Your task to perform on an android device: open chrome and create a bookmark for the current page Image 0: 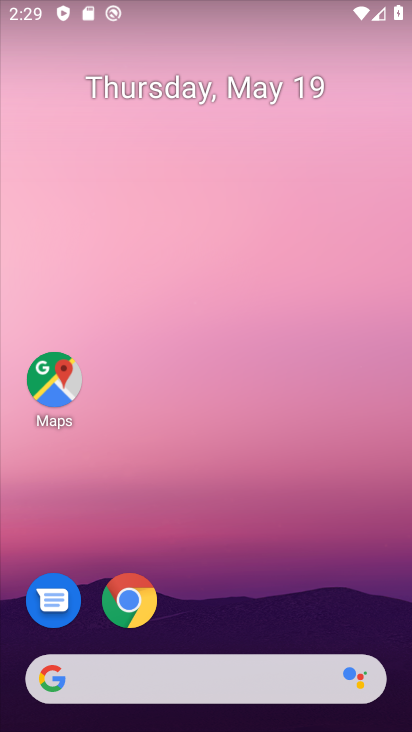
Step 0: click (143, 582)
Your task to perform on an android device: open chrome and create a bookmark for the current page Image 1: 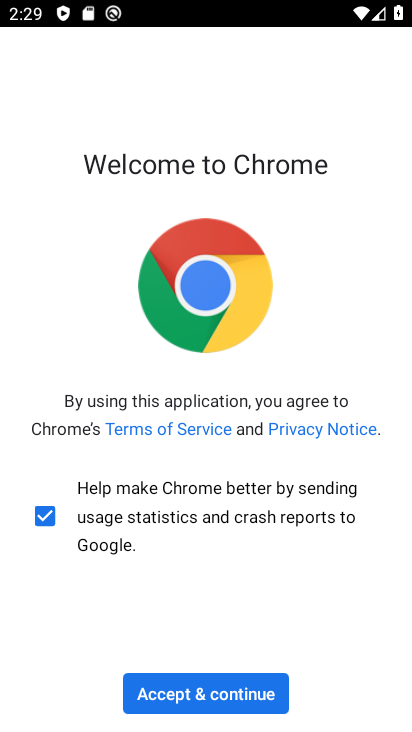
Step 1: click (244, 703)
Your task to perform on an android device: open chrome and create a bookmark for the current page Image 2: 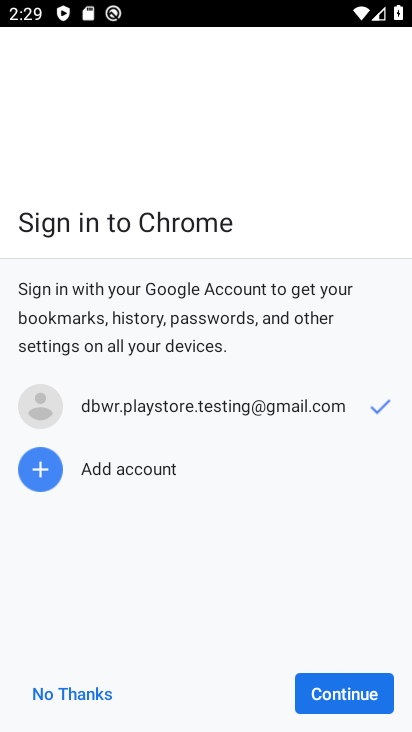
Step 2: click (250, 673)
Your task to perform on an android device: open chrome and create a bookmark for the current page Image 3: 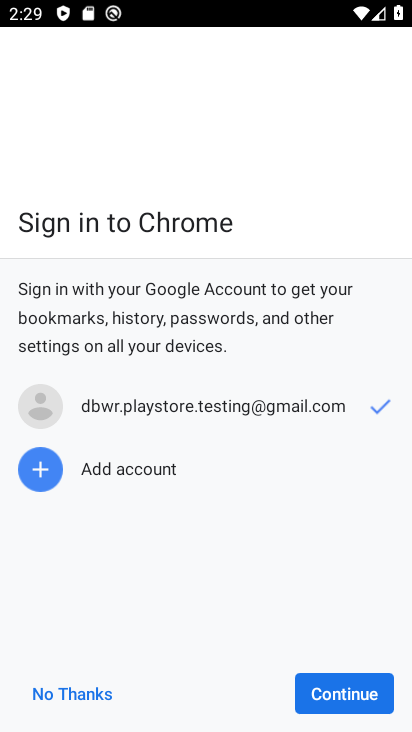
Step 3: click (340, 694)
Your task to perform on an android device: open chrome and create a bookmark for the current page Image 4: 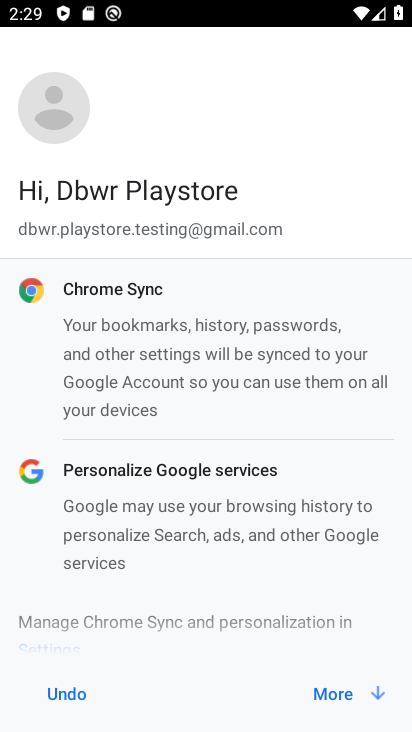
Step 4: click (332, 686)
Your task to perform on an android device: open chrome and create a bookmark for the current page Image 5: 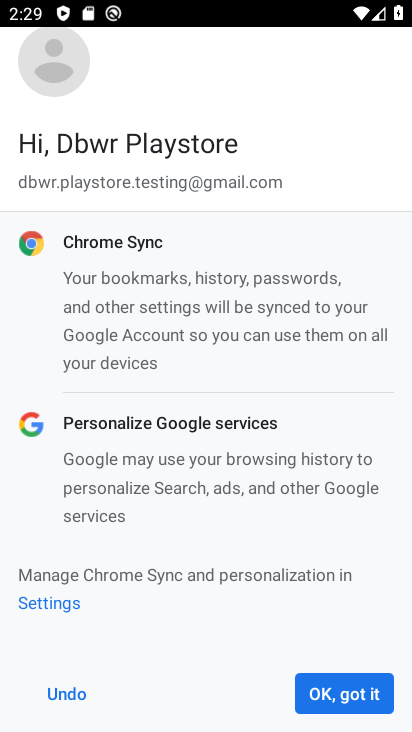
Step 5: click (332, 686)
Your task to perform on an android device: open chrome and create a bookmark for the current page Image 6: 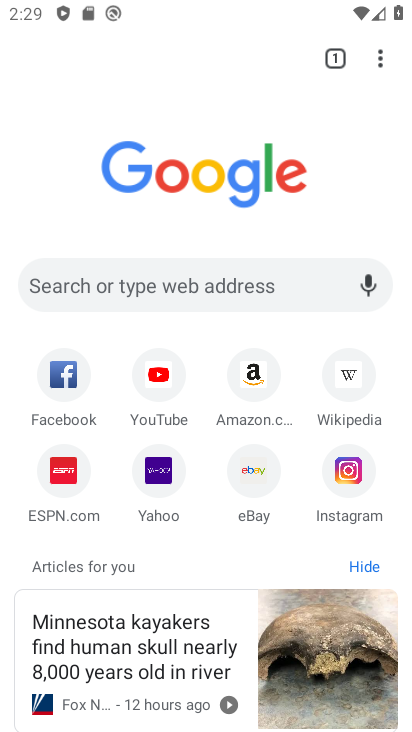
Step 6: click (375, 53)
Your task to perform on an android device: open chrome and create a bookmark for the current page Image 7: 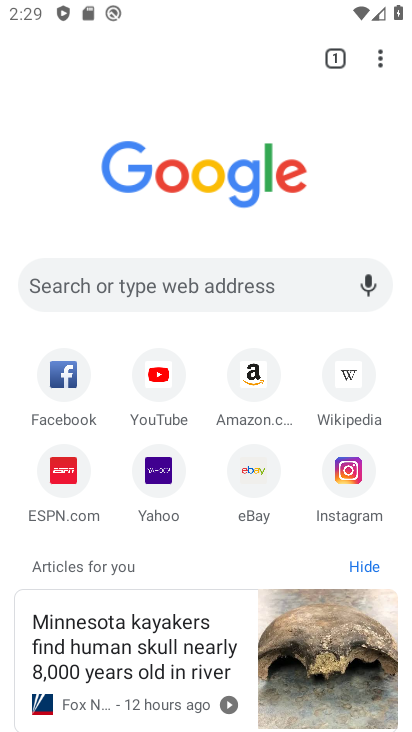
Step 7: click (379, 51)
Your task to perform on an android device: open chrome and create a bookmark for the current page Image 8: 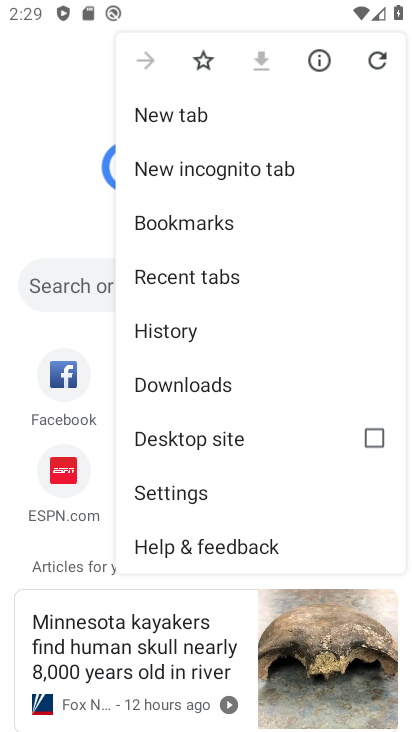
Step 8: click (185, 110)
Your task to perform on an android device: open chrome and create a bookmark for the current page Image 9: 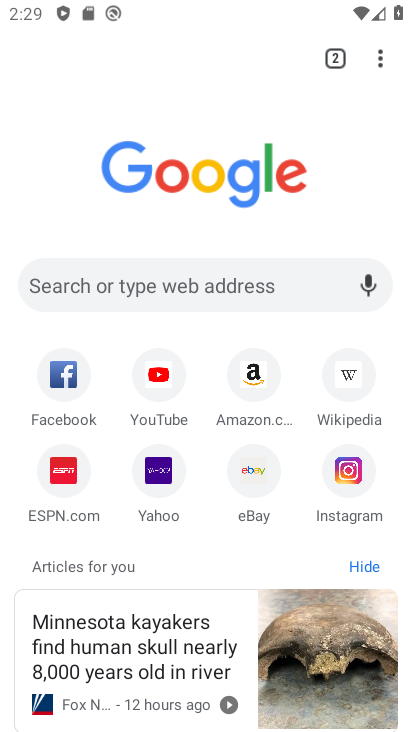
Step 9: click (383, 56)
Your task to perform on an android device: open chrome and create a bookmark for the current page Image 10: 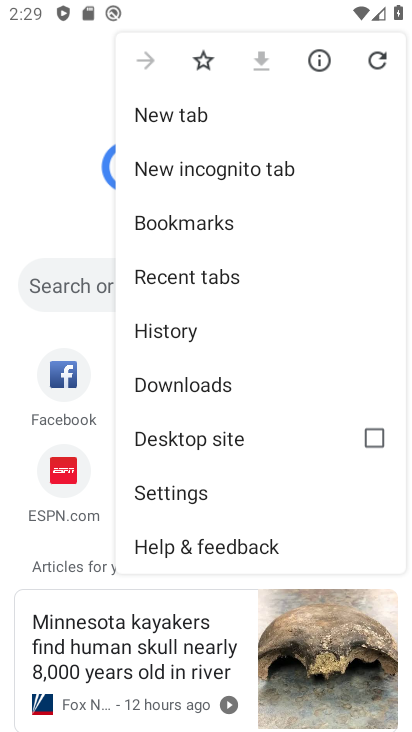
Step 10: click (204, 54)
Your task to perform on an android device: open chrome and create a bookmark for the current page Image 11: 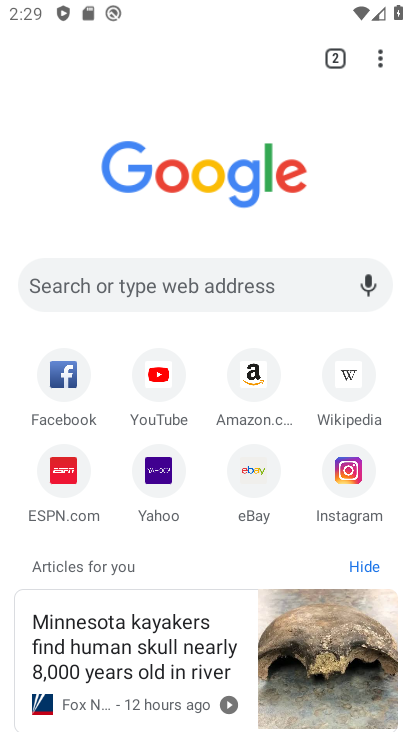
Step 11: click (411, 203)
Your task to perform on an android device: open chrome and create a bookmark for the current page Image 12: 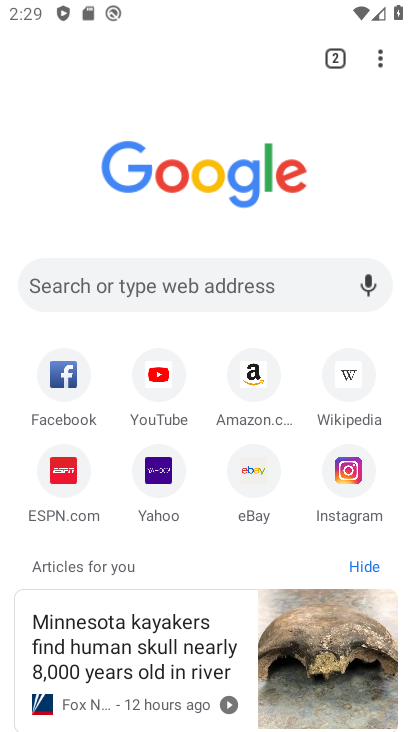
Step 12: task complete